Your task to perform on an android device: Open the stopwatch Image 0: 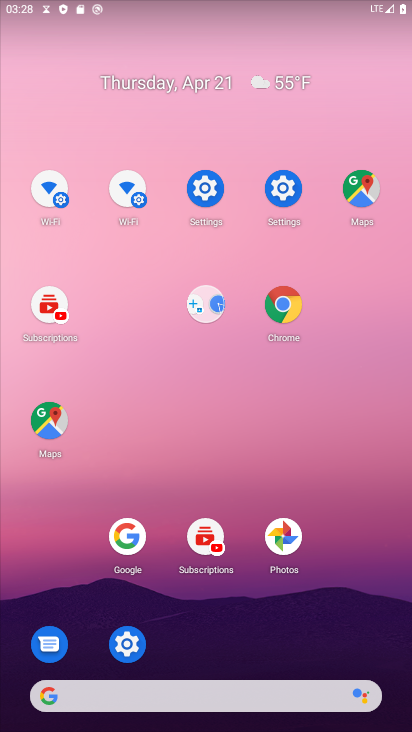
Step 0: click (99, 146)
Your task to perform on an android device: Open the stopwatch Image 1: 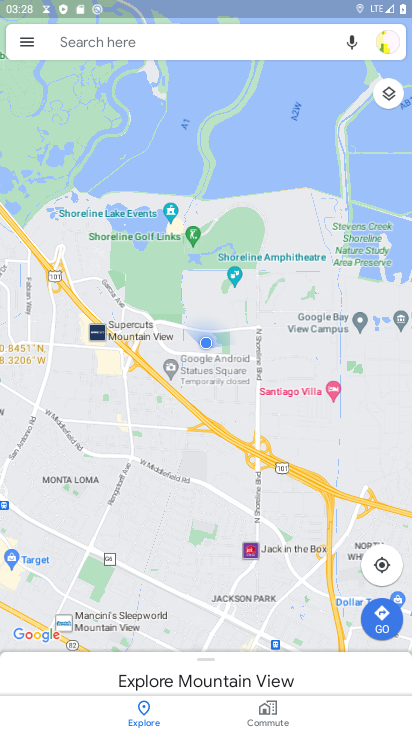
Step 1: click (27, 44)
Your task to perform on an android device: Open the stopwatch Image 2: 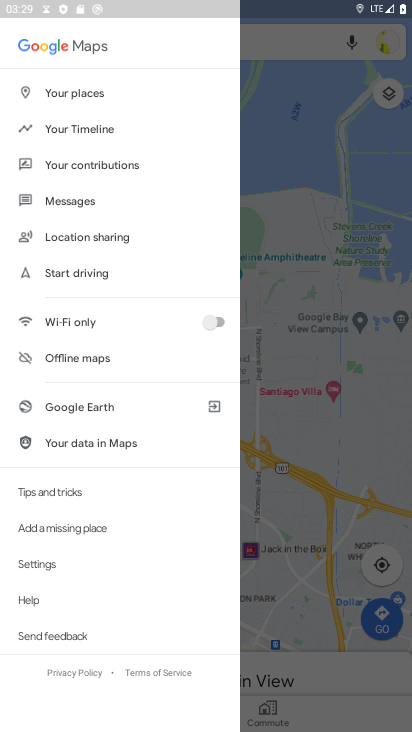
Step 2: click (315, 467)
Your task to perform on an android device: Open the stopwatch Image 3: 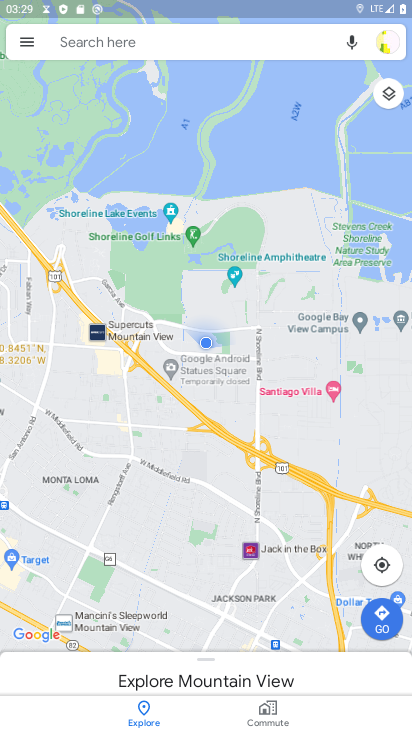
Step 3: press home button
Your task to perform on an android device: Open the stopwatch Image 4: 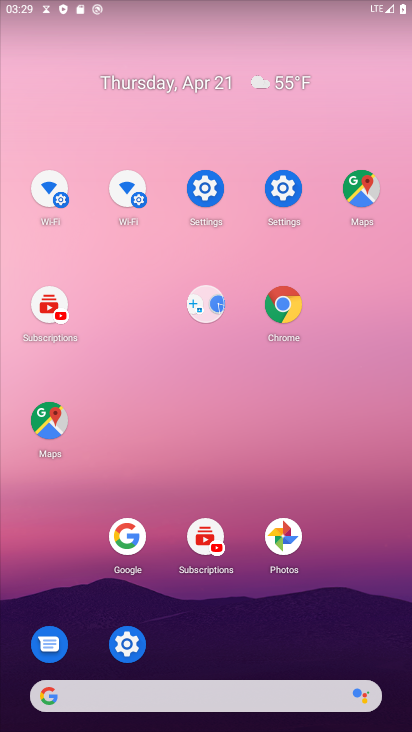
Step 4: click (365, 198)
Your task to perform on an android device: Open the stopwatch Image 5: 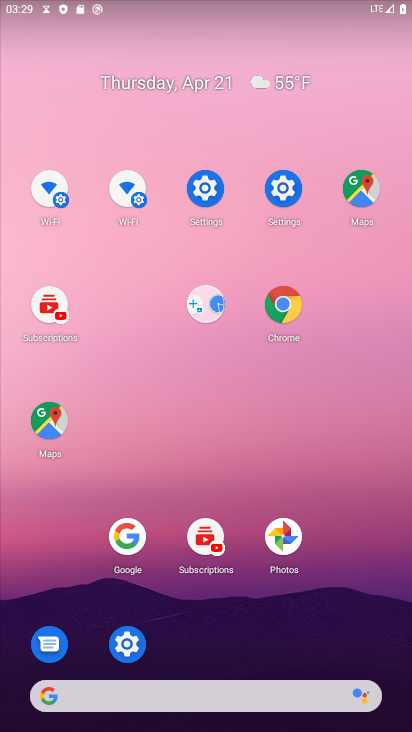
Step 5: click (365, 197)
Your task to perform on an android device: Open the stopwatch Image 6: 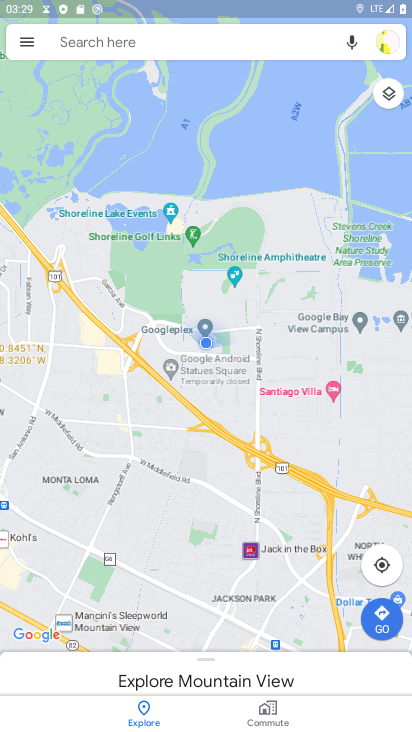
Step 6: click (24, 53)
Your task to perform on an android device: Open the stopwatch Image 7: 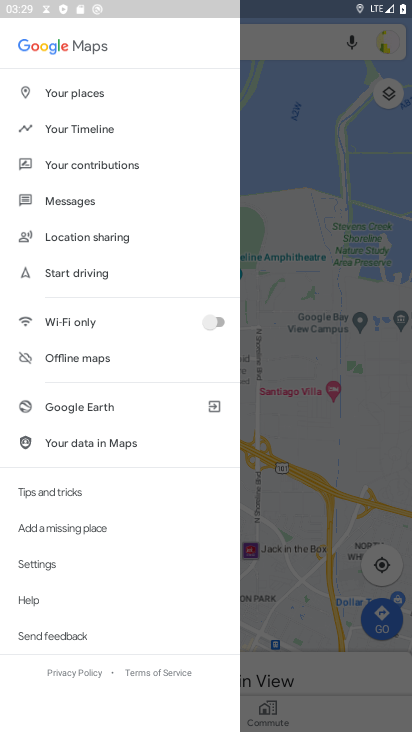
Step 7: press home button
Your task to perform on an android device: Open the stopwatch Image 8: 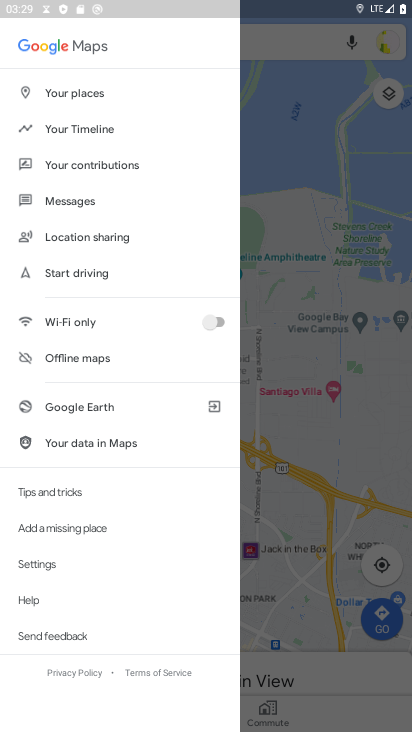
Step 8: press home button
Your task to perform on an android device: Open the stopwatch Image 9: 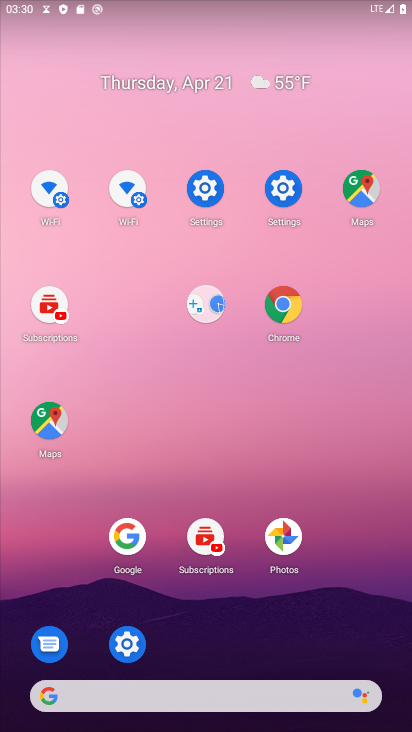
Step 9: drag from (355, 665) to (77, 107)
Your task to perform on an android device: Open the stopwatch Image 10: 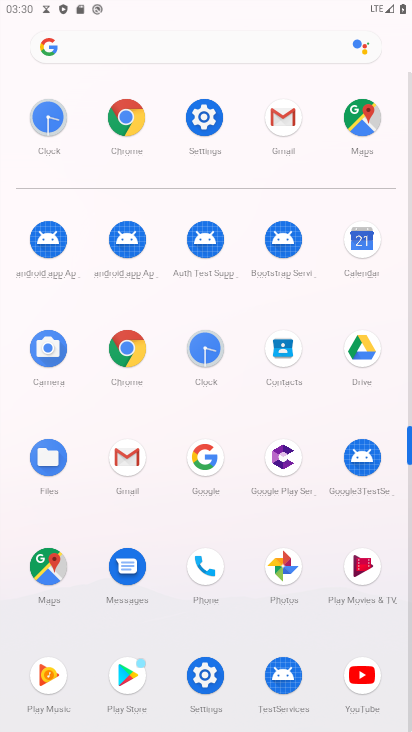
Step 10: click (204, 358)
Your task to perform on an android device: Open the stopwatch Image 11: 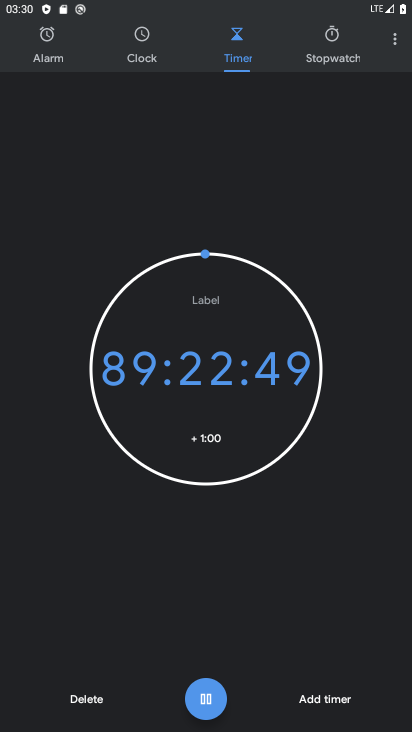
Step 11: click (319, 51)
Your task to perform on an android device: Open the stopwatch Image 12: 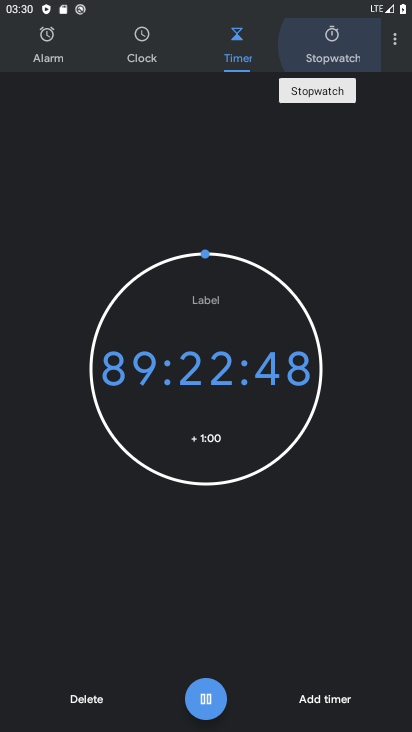
Step 12: click (319, 51)
Your task to perform on an android device: Open the stopwatch Image 13: 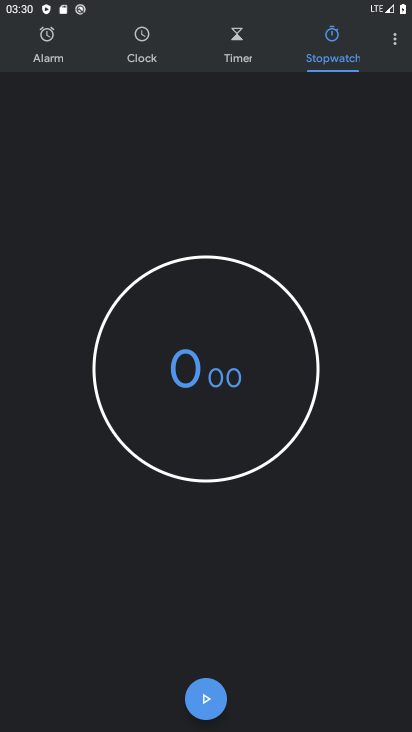
Step 13: click (206, 701)
Your task to perform on an android device: Open the stopwatch Image 14: 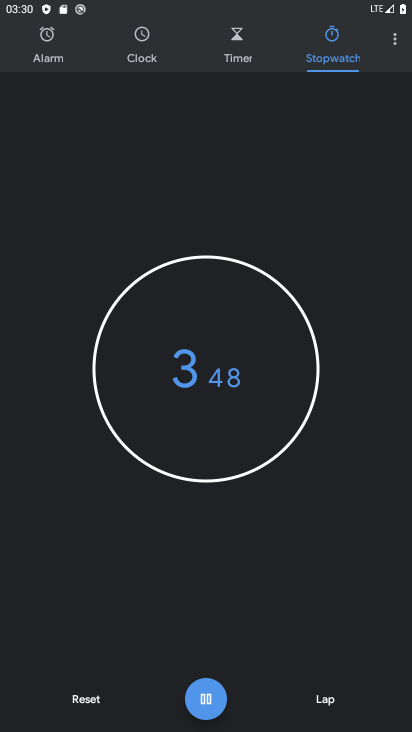
Step 14: click (206, 701)
Your task to perform on an android device: Open the stopwatch Image 15: 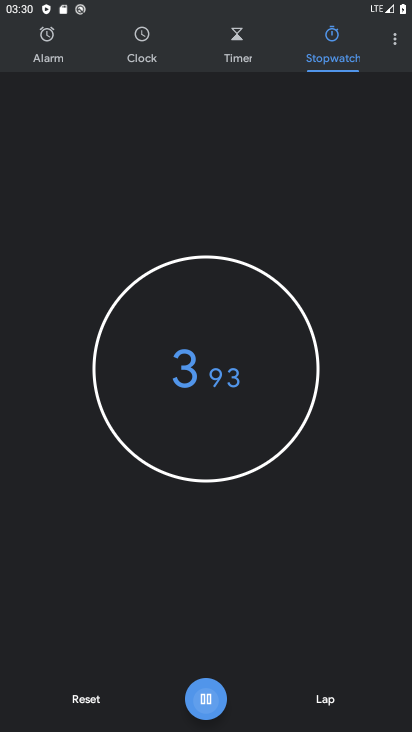
Step 15: click (206, 701)
Your task to perform on an android device: Open the stopwatch Image 16: 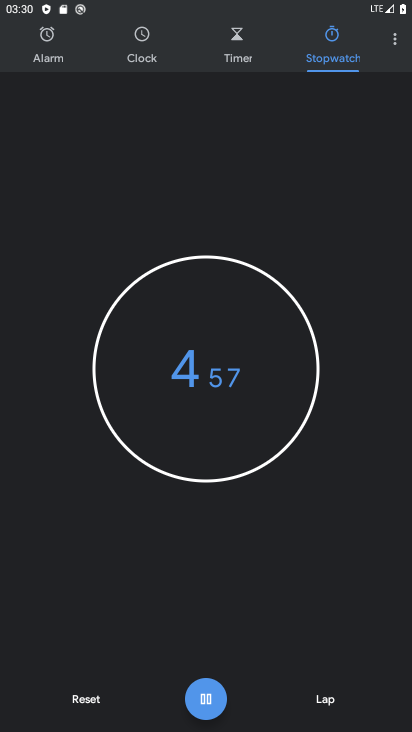
Step 16: click (206, 701)
Your task to perform on an android device: Open the stopwatch Image 17: 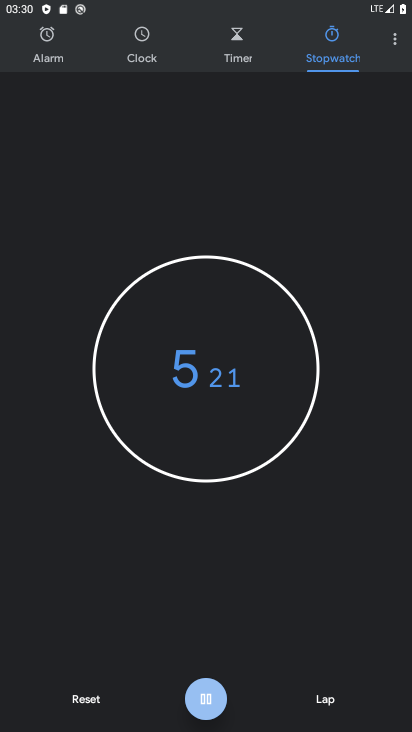
Step 17: click (206, 701)
Your task to perform on an android device: Open the stopwatch Image 18: 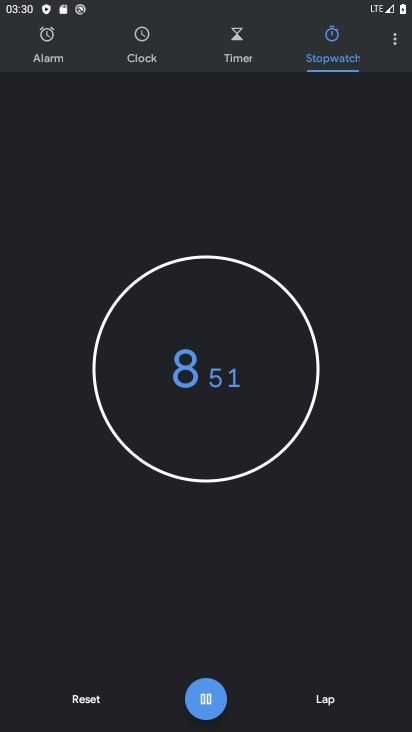
Step 18: task complete